Your task to perform on an android device: Open wifi settings Image 0: 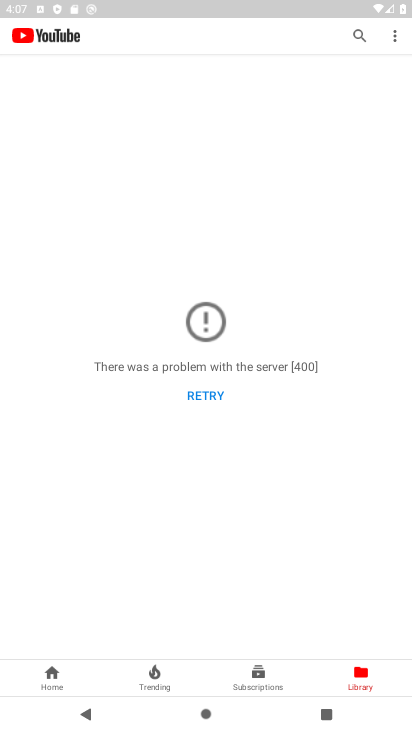
Step 0: press home button
Your task to perform on an android device: Open wifi settings Image 1: 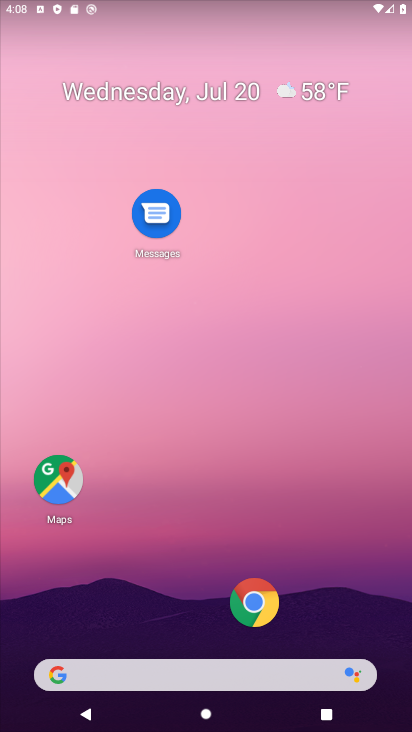
Step 1: drag from (204, 549) to (194, 165)
Your task to perform on an android device: Open wifi settings Image 2: 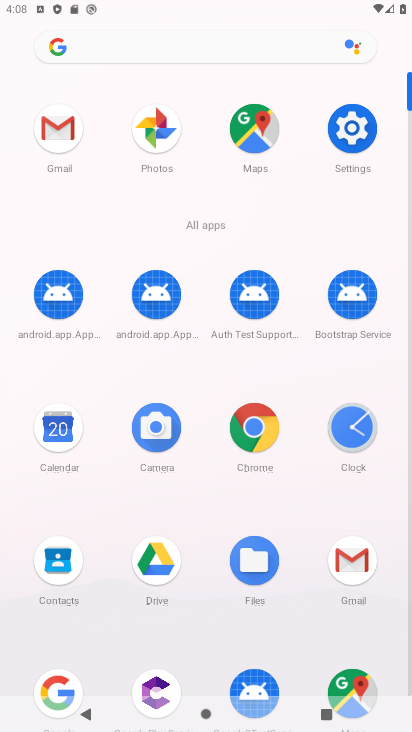
Step 2: click (358, 143)
Your task to perform on an android device: Open wifi settings Image 3: 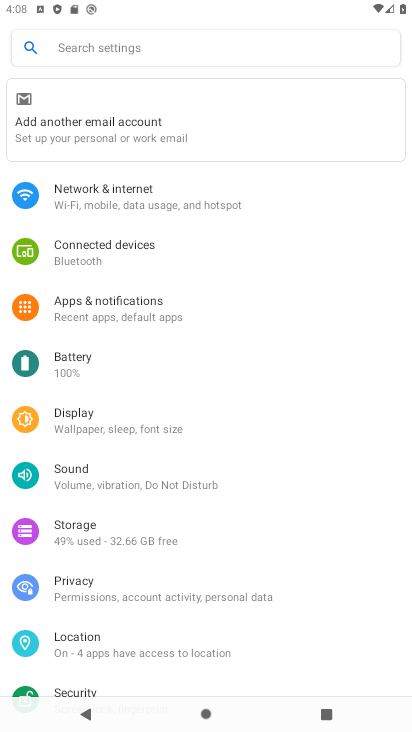
Step 3: click (130, 200)
Your task to perform on an android device: Open wifi settings Image 4: 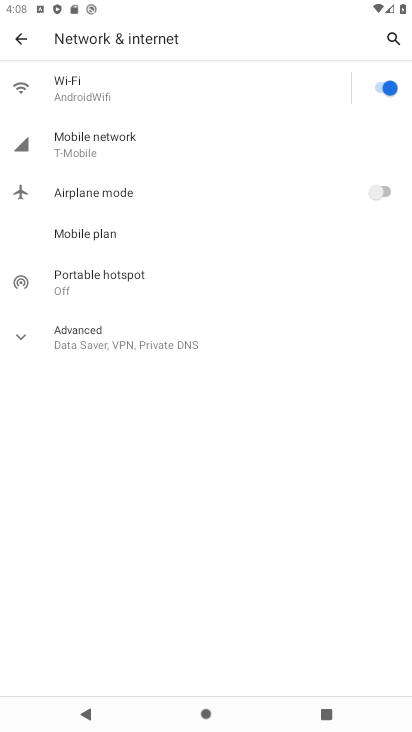
Step 4: task complete